Your task to perform on an android device: Go to Yahoo.com Image 0: 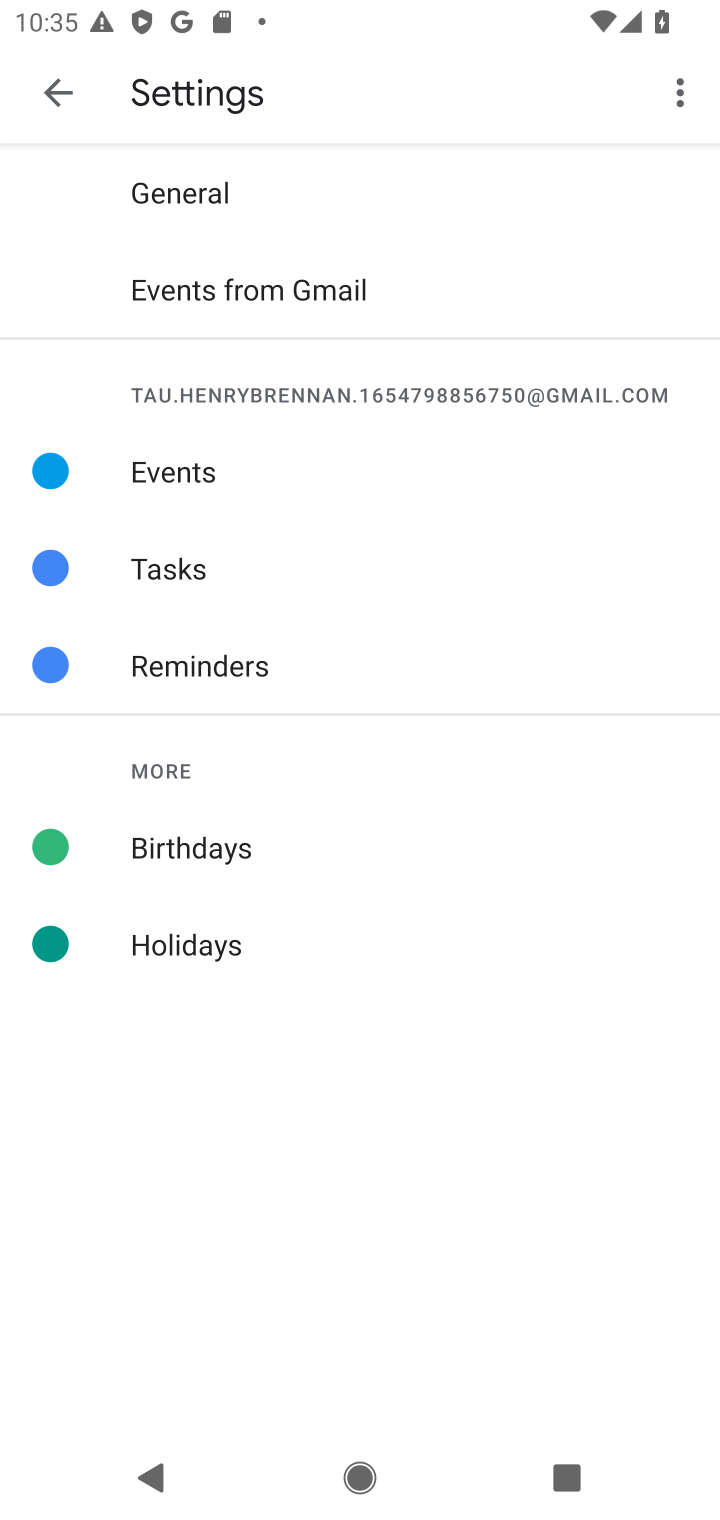
Step 0: press back button
Your task to perform on an android device: Go to Yahoo.com Image 1: 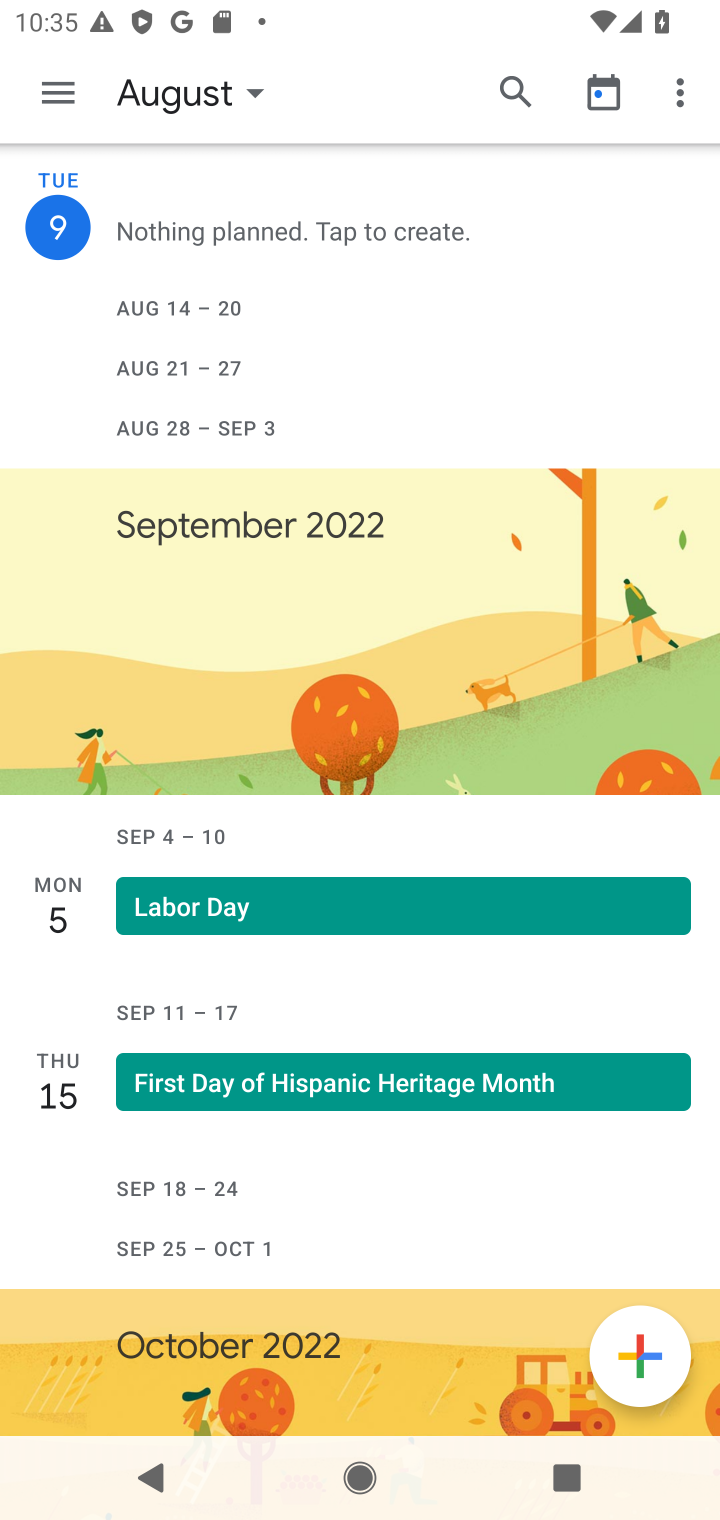
Step 1: press home button
Your task to perform on an android device: Go to Yahoo.com Image 2: 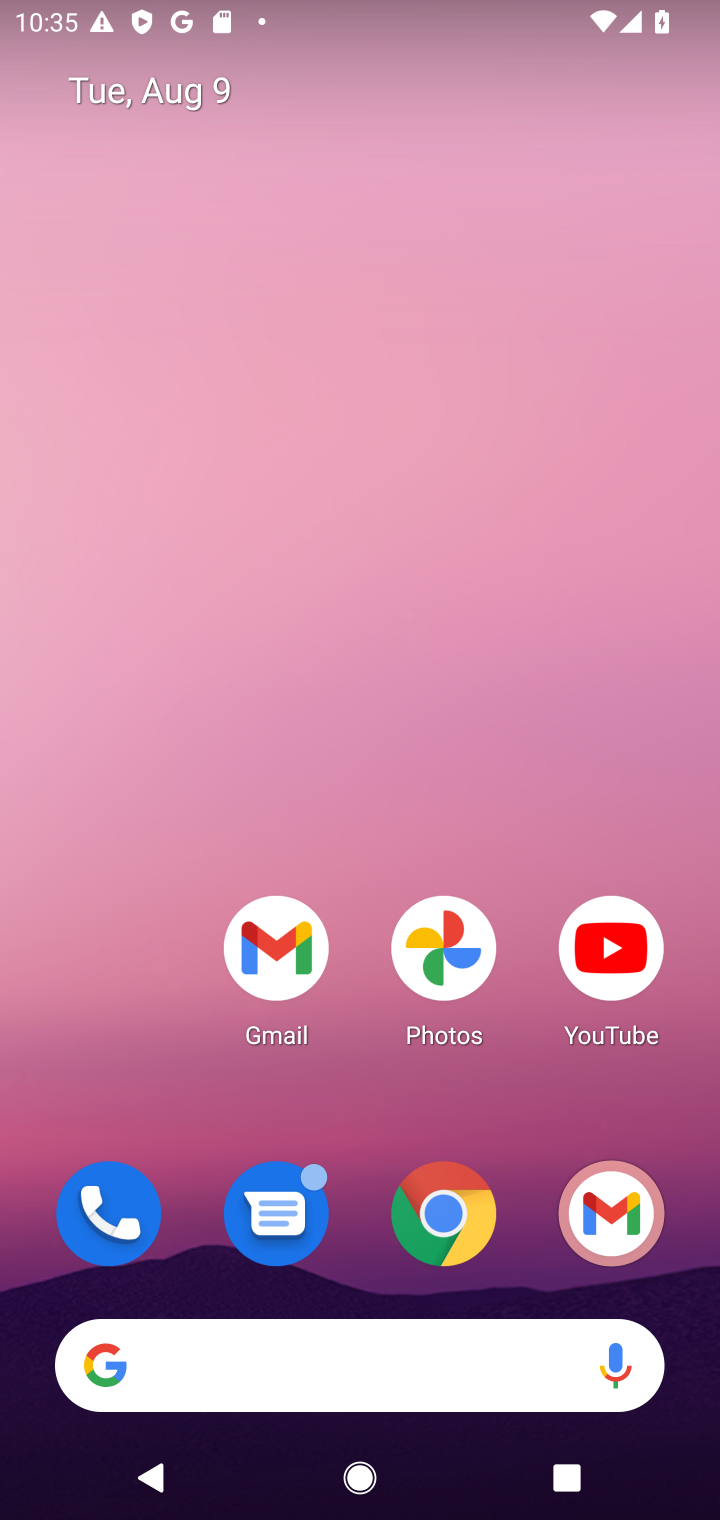
Step 2: click (458, 1219)
Your task to perform on an android device: Go to Yahoo.com Image 3: 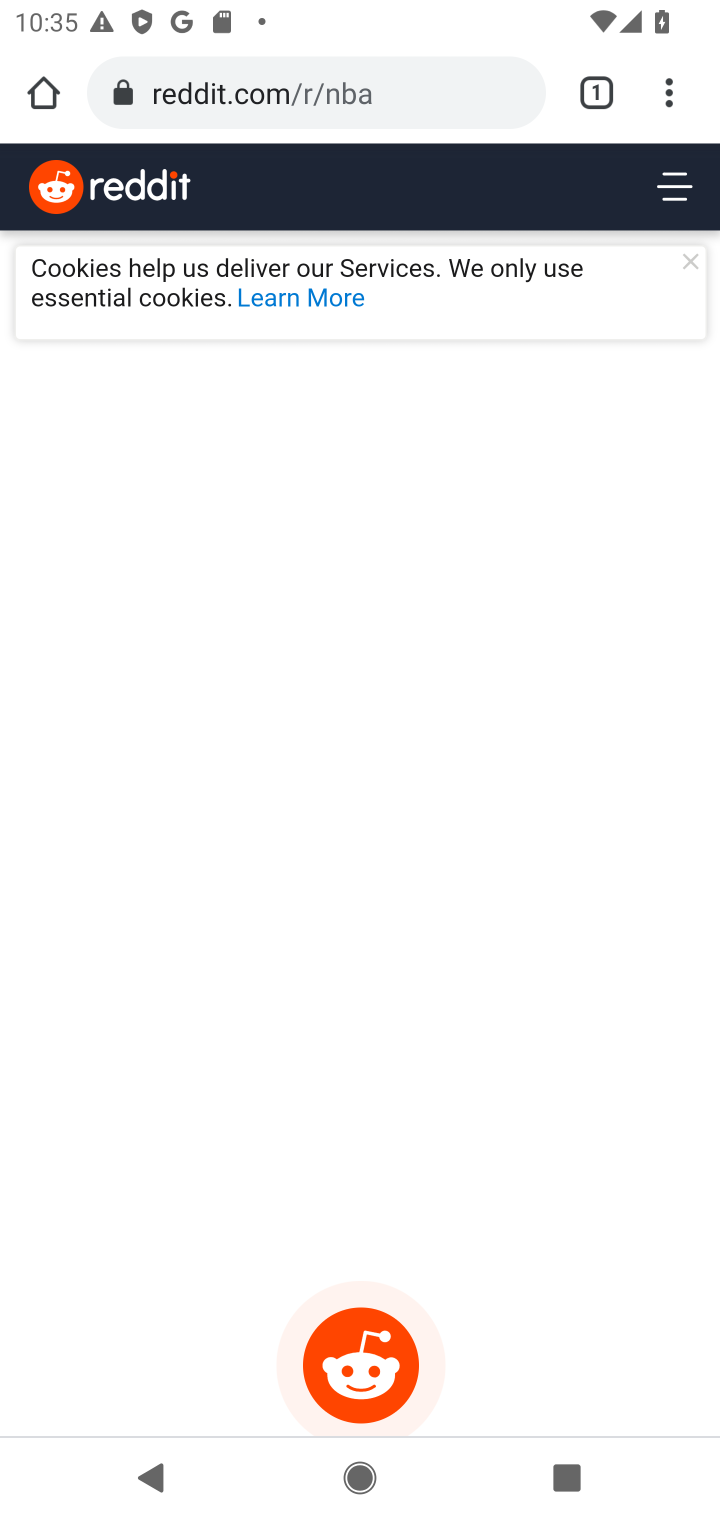
Step 3: click (594, 104)
Your task to perform on an android device: Go to Yahoo.com Image 4: 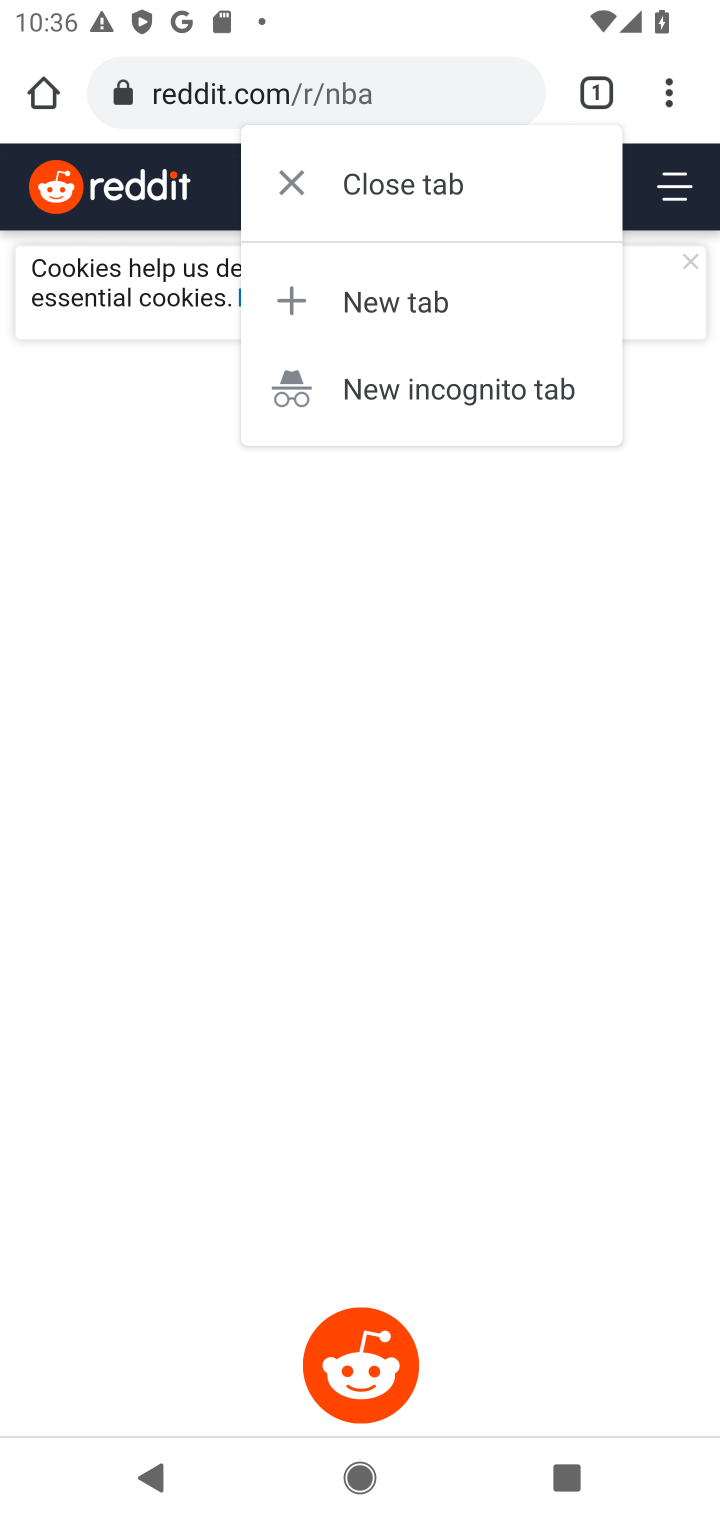
Step 4: click (392, 314)
Your task to perform on an android device: Go to Yahoo.com Image 5: 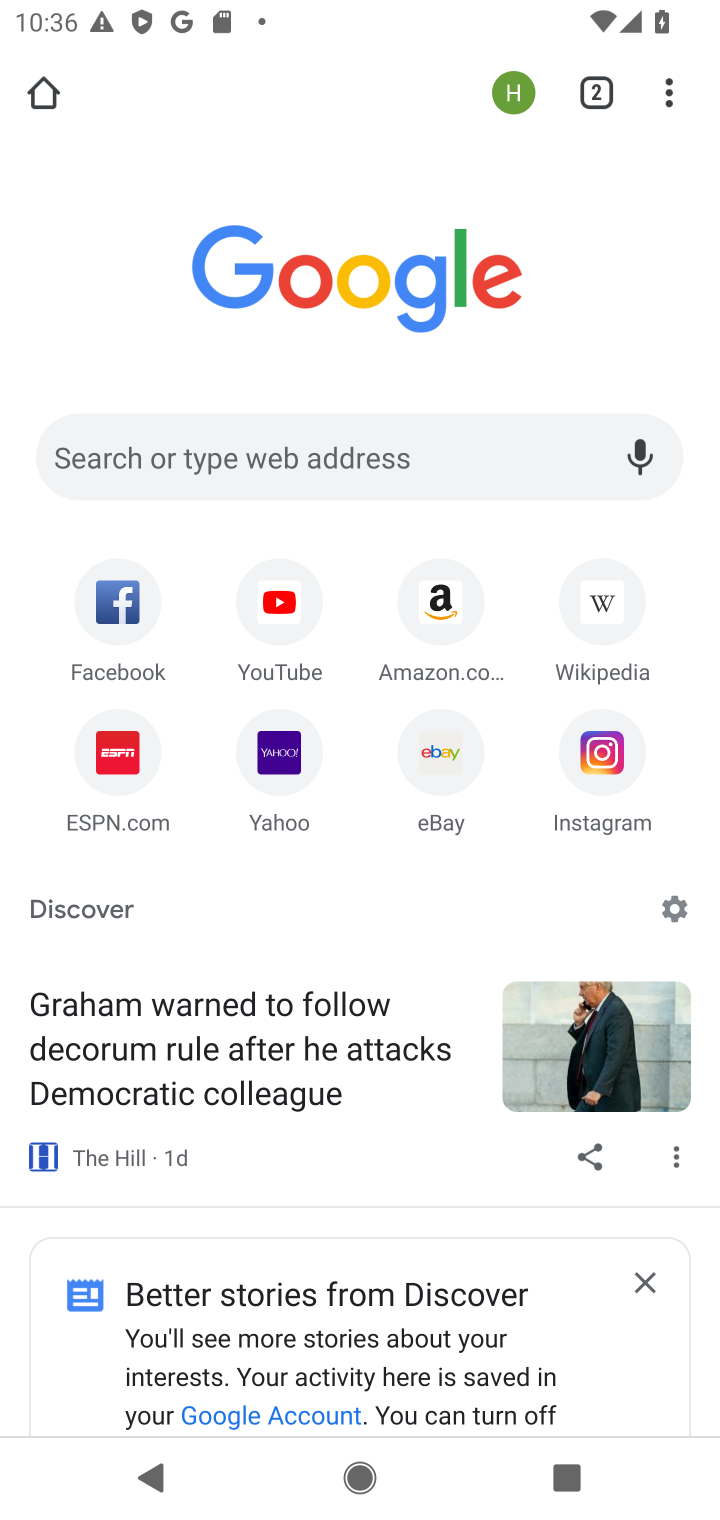
Step 5: click (270, 769)
Your task to perform on an android device: Go to Yahoo.com Image 6: 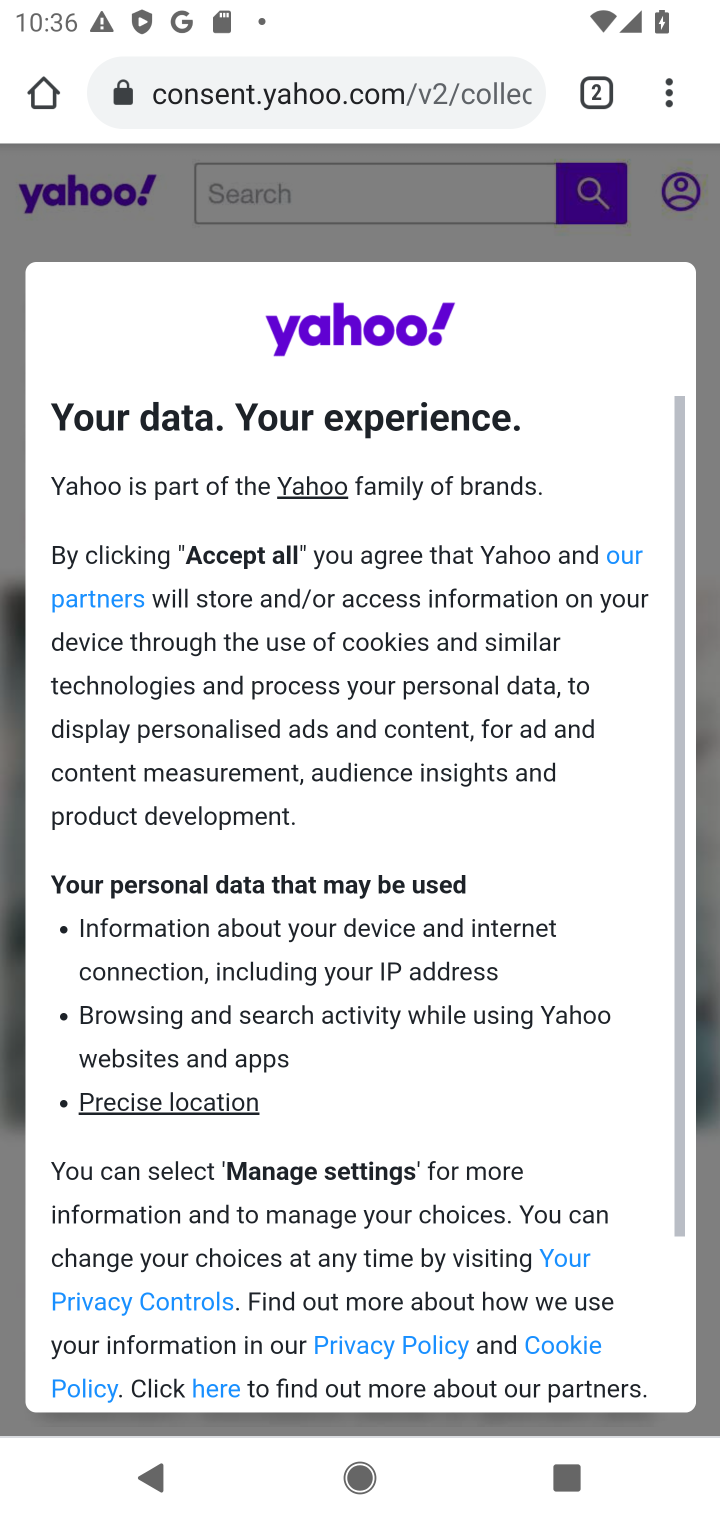
Step 6: task complete